Your task to perform on an android device: Open the web browser Image 0: 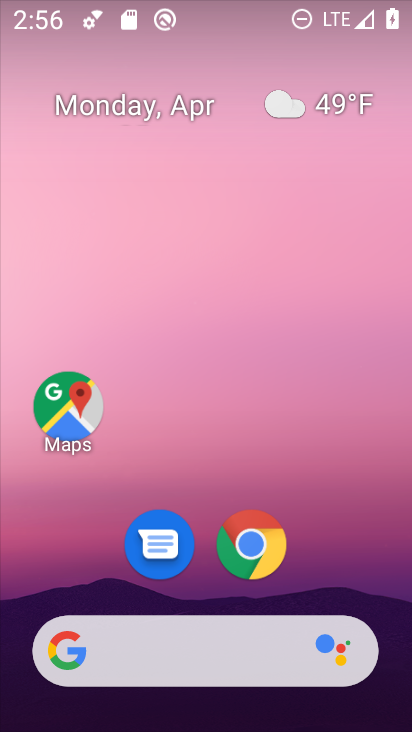
Step 0: click (249, 535)
Your task to perform on an android device: Open the web browser Image 1: 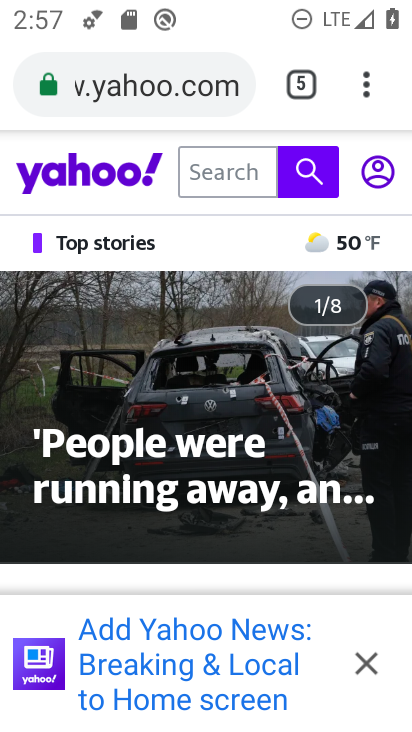
Step 1: task complete